Your task to perform on an android device: turn on showing notifications on the lock screen Image 0: 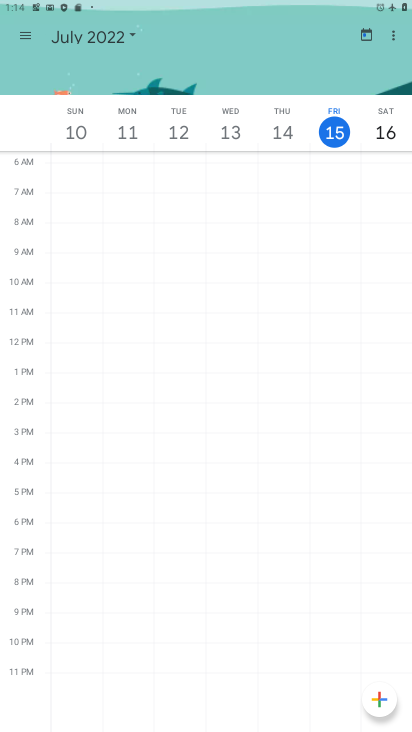
Step 0: press home button
Your task to perform on an android device: turn on showing notifications on the lock screen Image 1: 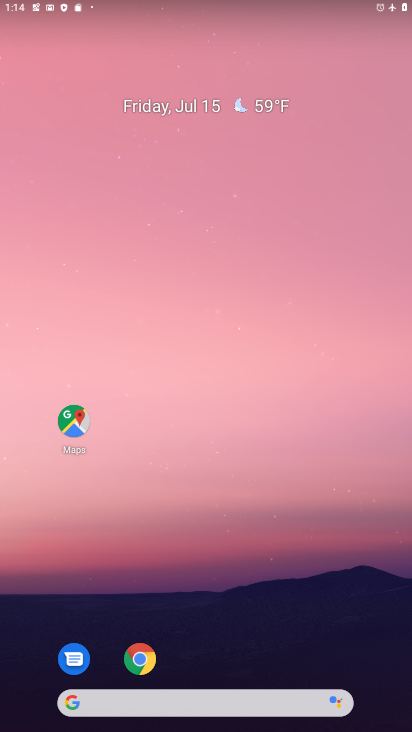
Step 1: drag from (251, 683) to (247, 174)
Your task to perform on an android device: turn on showing notifications on the lock screen Image 2: 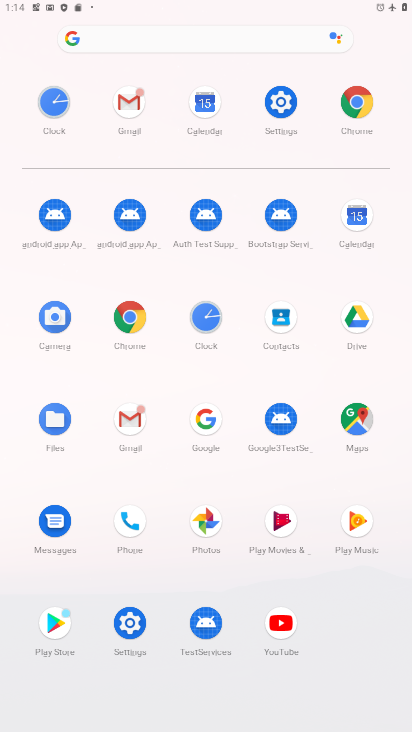
Step 2: click (292, 95)
Your task to perform on an android device: turn on showing notifications on the lock screen Image 3: 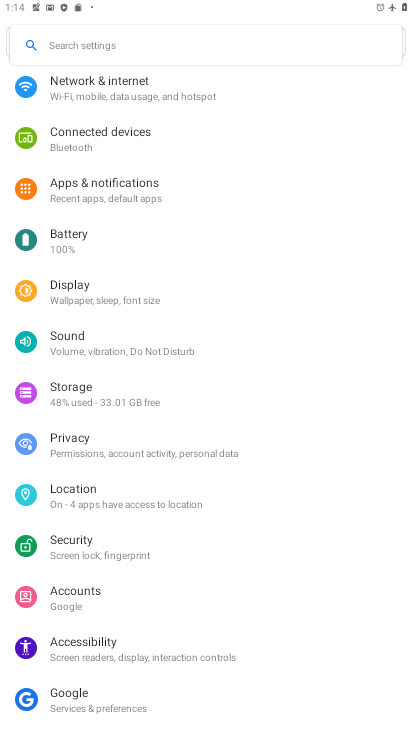
Step 3: click (114, 186)
Your task to perform on an android device: turn on showing notifications on the lock screen Image 4: 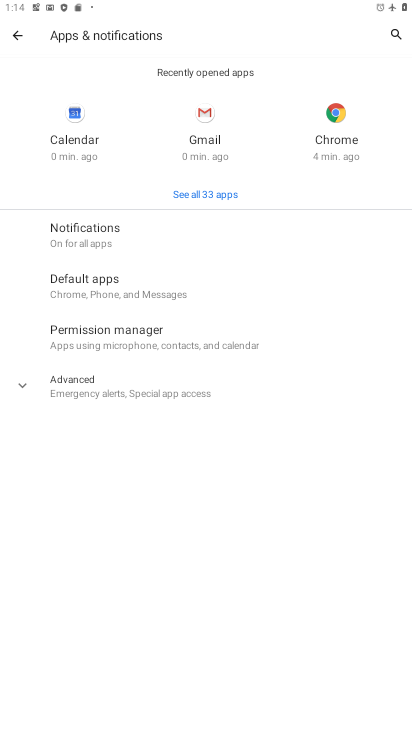
Step 4: click (82, 226)
Your task to perform on an android device: turn on showing notifications on the lock screen Image 5: 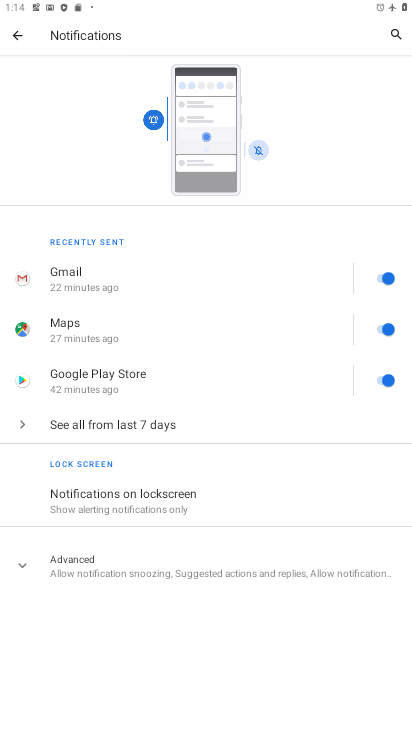
Step 5: click (103, 498)
Your task to perform on an android device: turn on showing notifications on the lock screen Image 6: 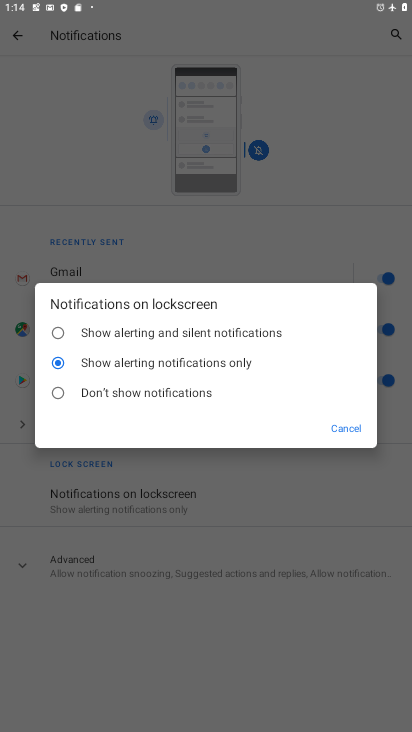
Step 6: click (54, 328)
Your task to perform on an android device: turn on showing notifications on the lock screen Image 7: 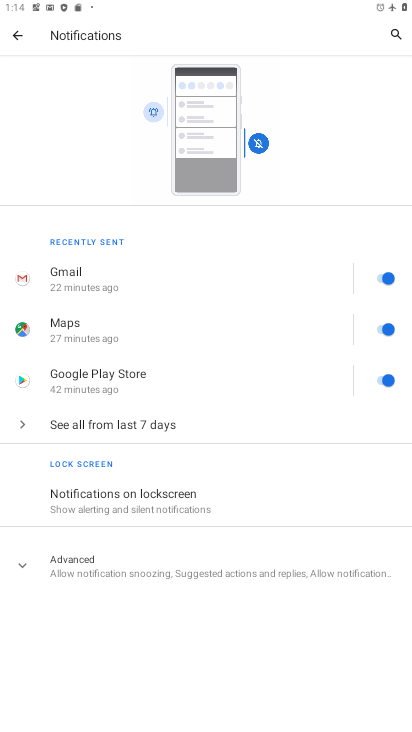
Step 7: task complete